Your task to perform on an android device: Open calendar and show me the first week of next month Image 0: 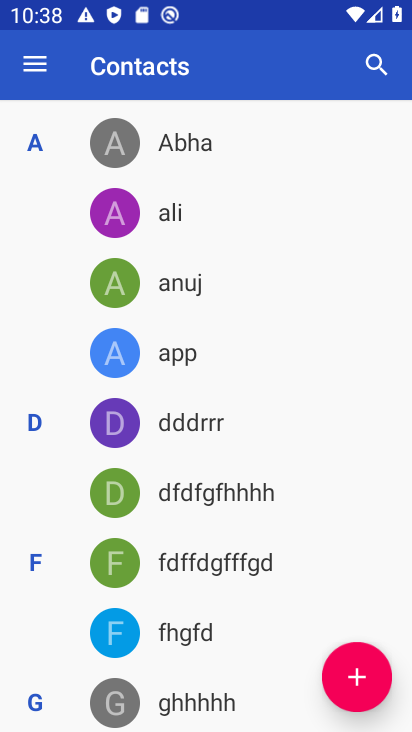
Step 0: press home button
Your task to perform on an android device: Open calendar and show me the first week of next month Image 1: 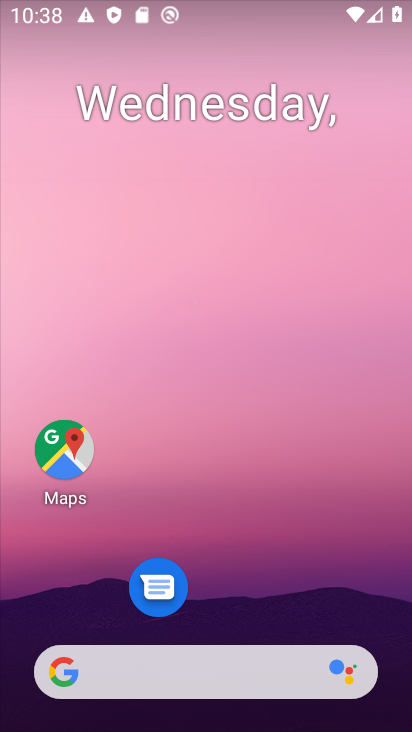
Step 1: drag from (222, 609) to (214, 14)
Your task to perform on an android device: Open calendar and show me the first week of next month Image 2: 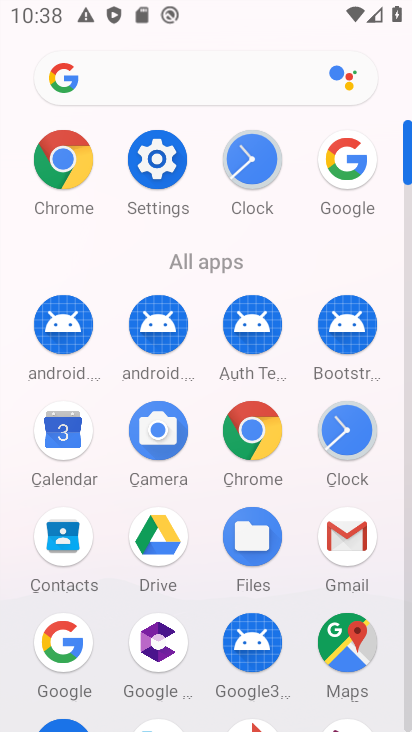
Step 2: click (67, 421)
Your task to perform on an android device: Open calendar and show me the first week of next month Image 3: 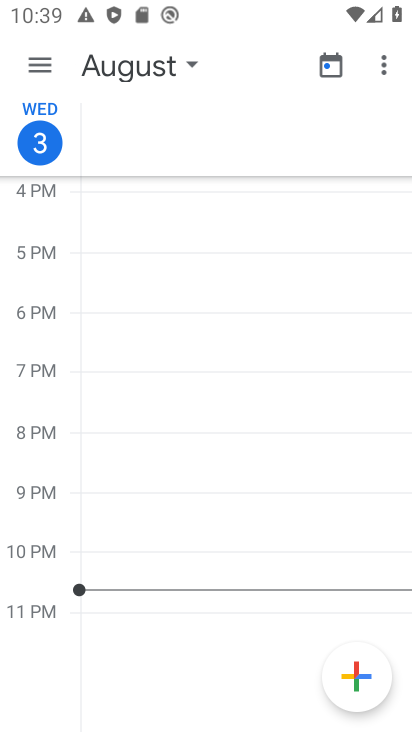
Step 3: click (182, 55)
Your task to perform on an android device: Open calendar and show me the first week of next month Image 4: 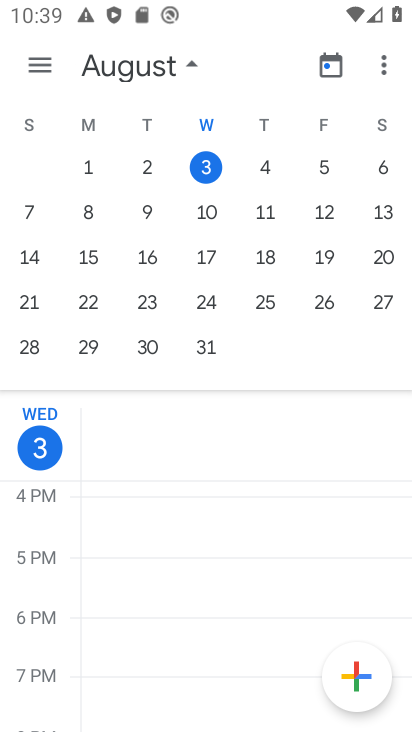
Step 4: click (33, 62)
Your task to perform on an android device: Open calendar and show me the first week of next month Image 5: 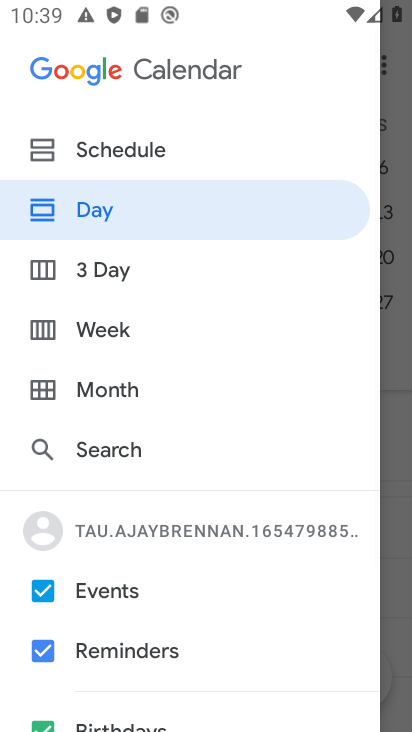
Step 5: click (136, 330)
Your task to perform on an android device: Open calendar and show me the first week of next month Image 6: 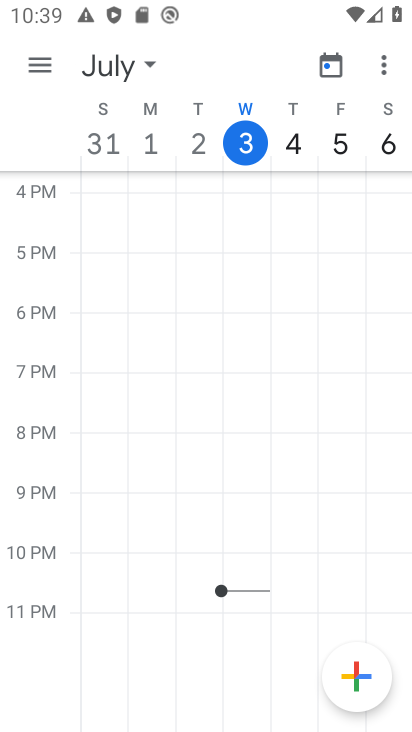
Step 6: click (154, 58)
Your task to perform on an android device: Open calendar and show me the first week of next month Image 7: 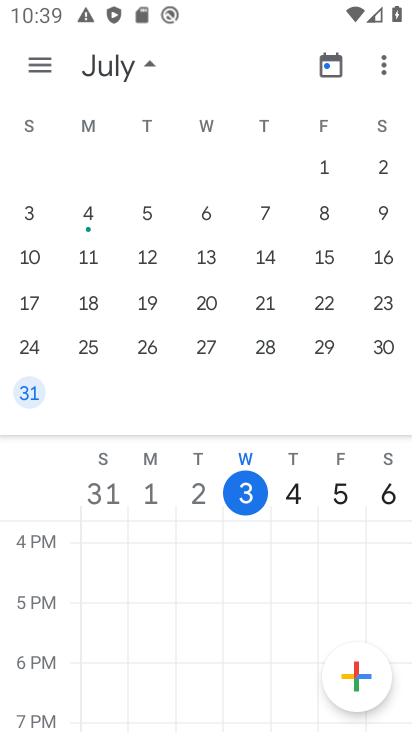
Step 7: drag from (368, 292) to (6, 318)
Your task to perform on an android device: Open calendar and show me the first week of next month Image 8: 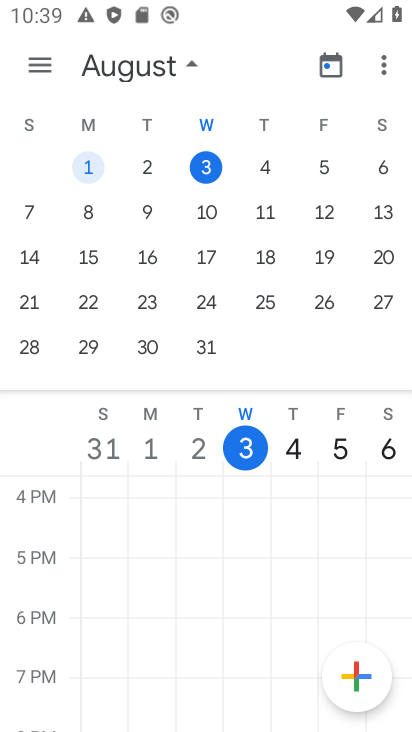
Step 8: drag from (357, 260) to (11, 276)
Your task to perform on an android device: Open calendar and show me the first week of next month Image 9: 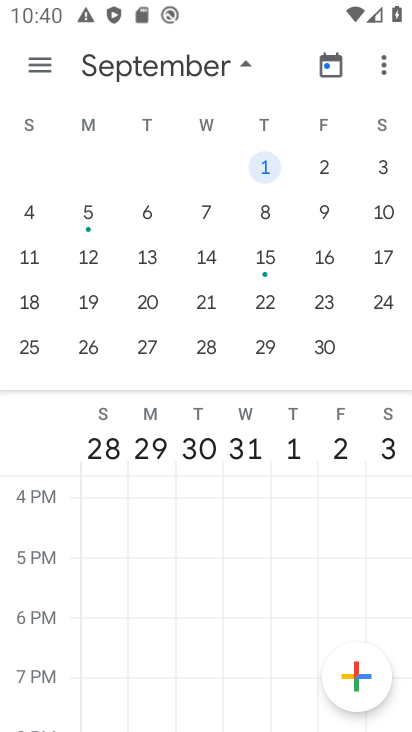
Step 9: click (32, 211)
Your task to perform on an android device: Open calendar and show me the first week of next month Image 10: 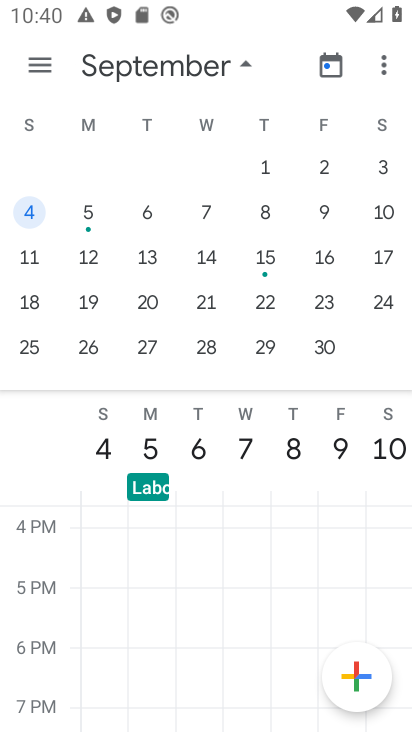
Step 10: click (239, 65)
Your task to perform on an android device: Open calendar and show me the first week of next month Image 11: 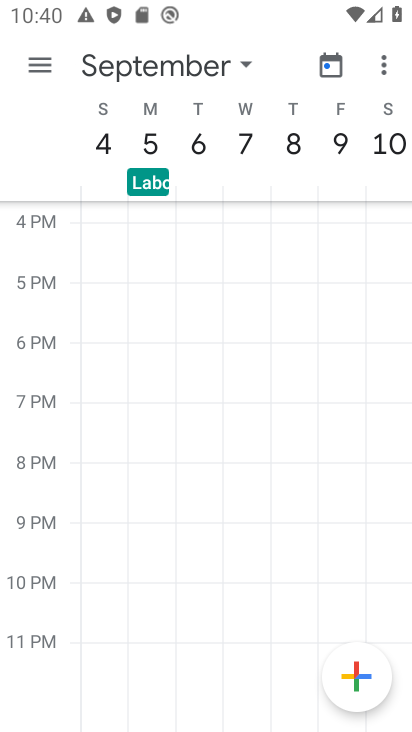
Step 11: task complete